Your task to perform on an android device: turn pop-ups off in chrome Image 0: 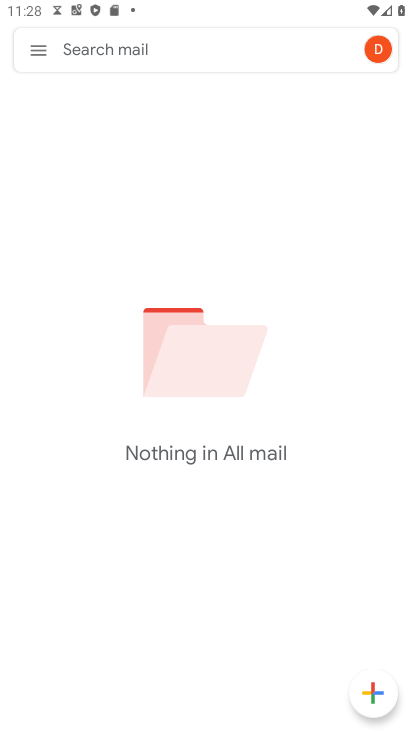
Step 0: press home button
Your task to perform on an android device: turn pop-ups off in chrome Image 1: 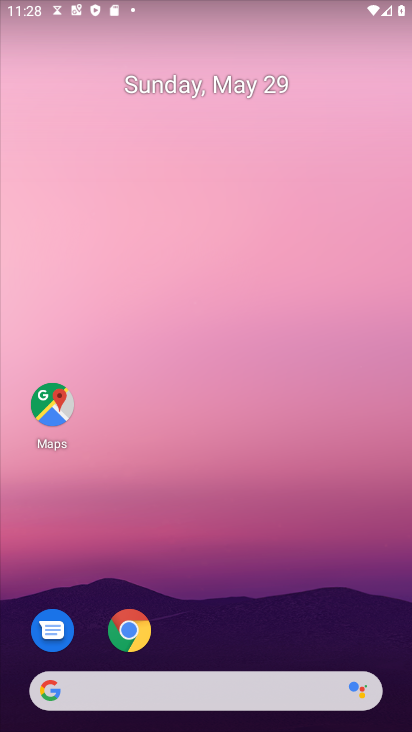
Step 1: click (131, 616)
Your task to perform on an android device: turn pop-ups off in chrome Image 2: 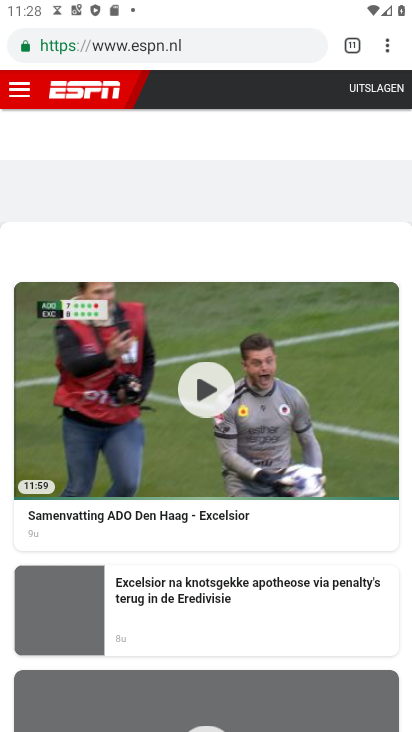
Step 2: click (398, 53)
Your task to perform on an android device: turn pop-ups off in chrome Image 3: 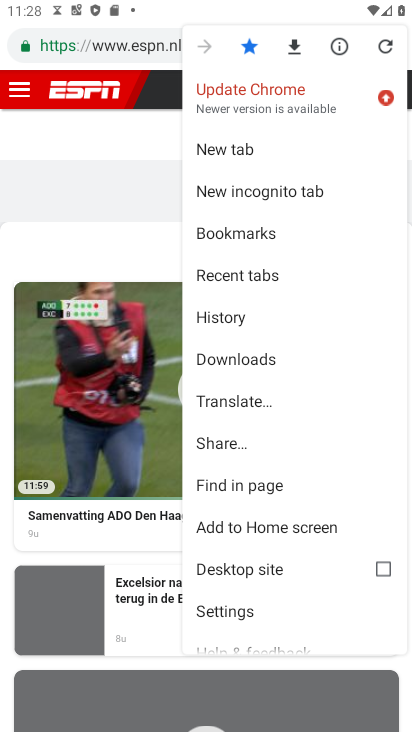
Step 3: click (227, 600)
Your task to perform on an android device: turn pop-ups off in chrome Image 4: 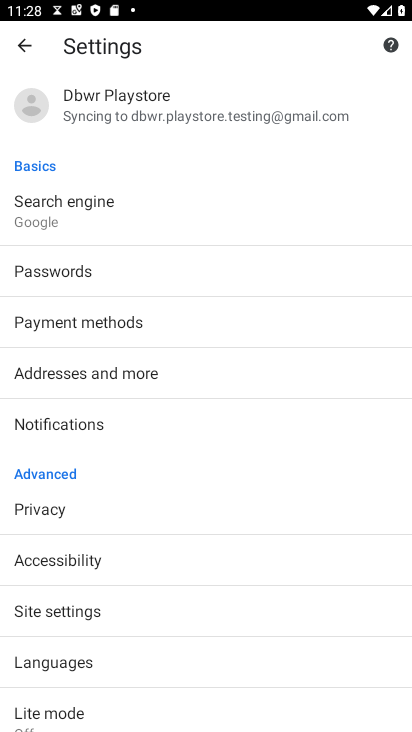
Step 4: drag from (164, 610) to (186, 254)
Your task to perform on an android device: turn pop-ups off in chrome Image 5: 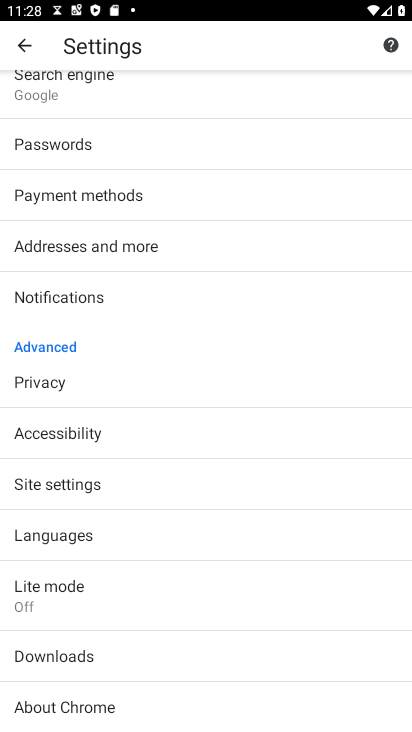
Step 5: click (15, 474)
Your task to perform on an android device: turn pop-ups off in chrome Image 6: 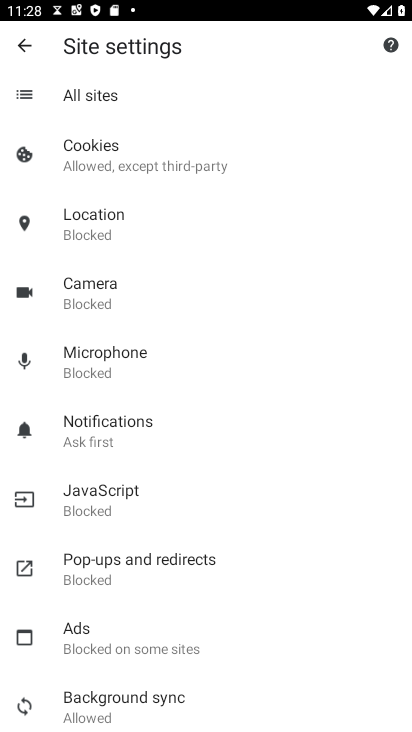
Step 6: click (99, 577)
Your task to perform on an android device: turn pop-ups off in chrome Image 7: 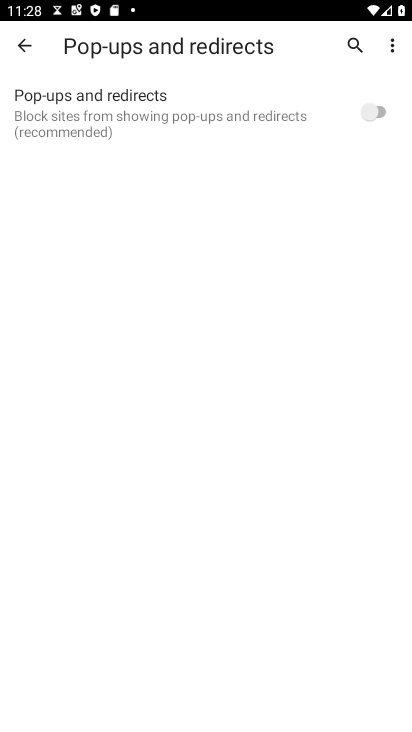
Step 7: task complete